Your task to perform on an android device: Add razer kraken to the cart on bestbuy, then select checkout. Image 0: 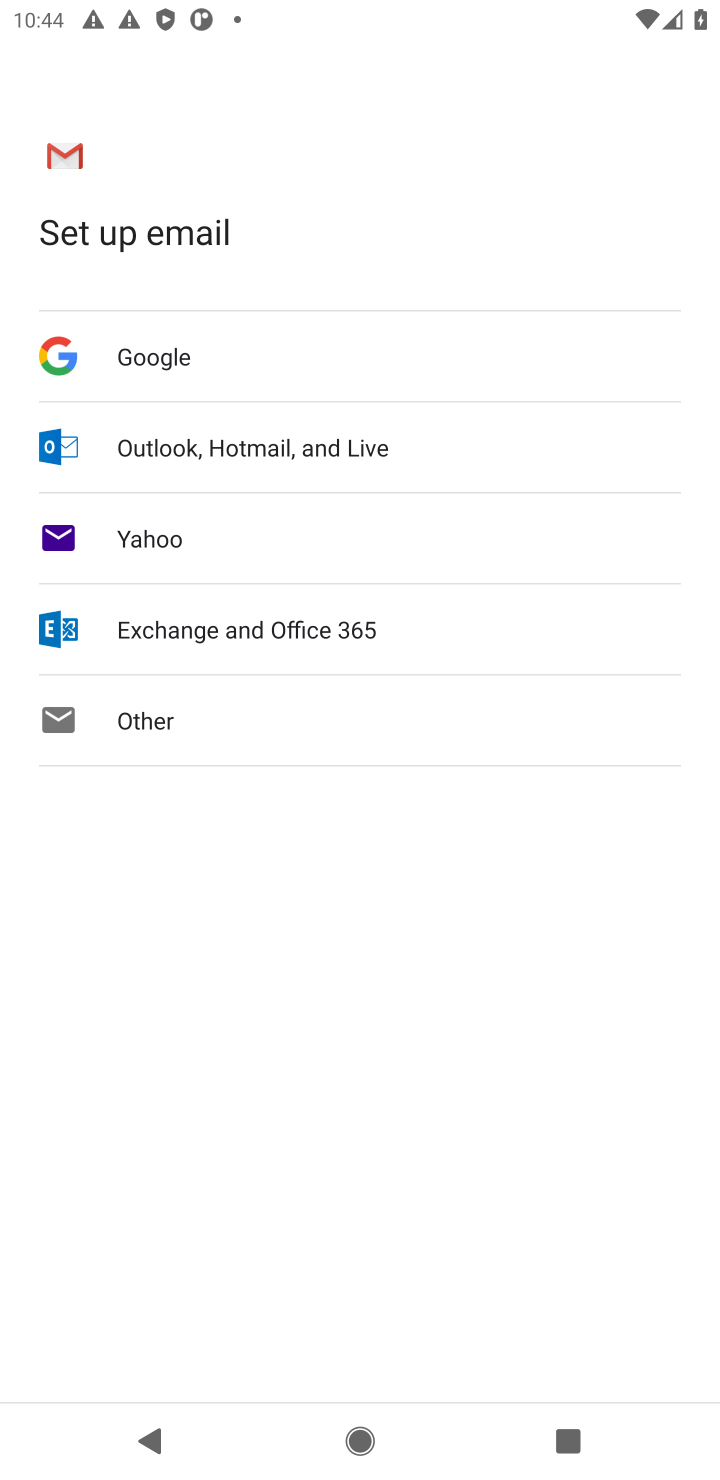
Step 0: press home button
Your task to perform on an android device: Add razer kraken to the cart on bestbuy, then select checkout. Image 1: 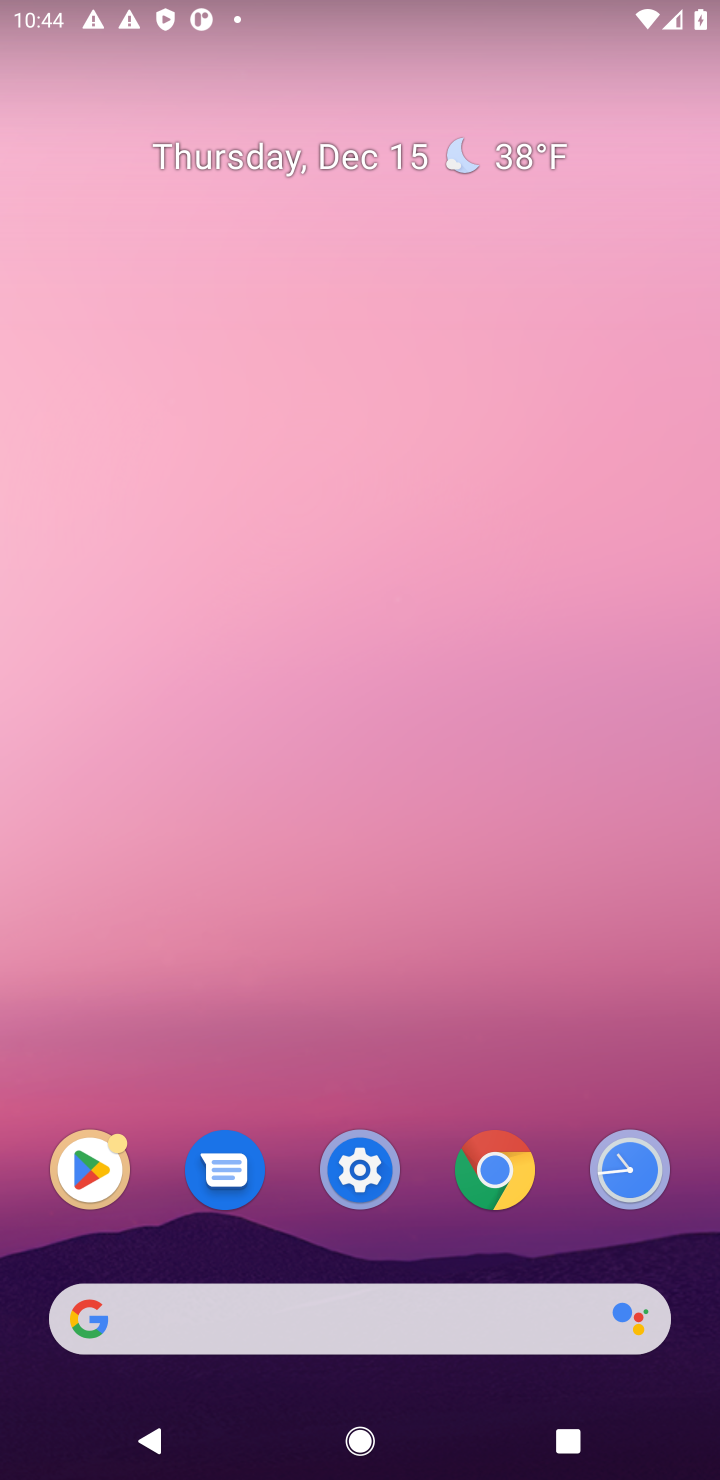
Step 1: click (485, 1184)
Your task to perform on an android device: Add razer kraken to the cart on bestbuy, then select checkout. Image 2: 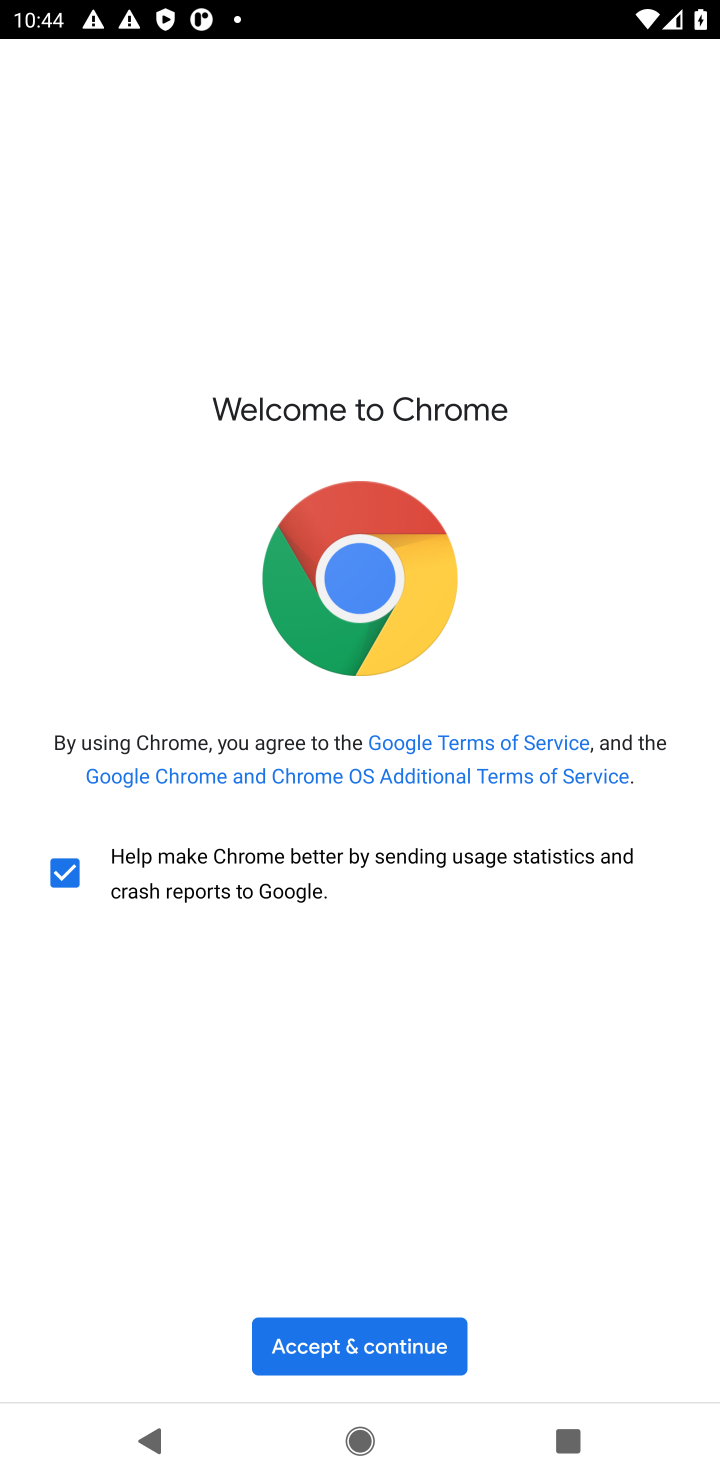
Step 2: click (373, 1339)
Your task to perform on an android device: Add razer kraken to the cart on bestbuy, then select checkout. Image 3: 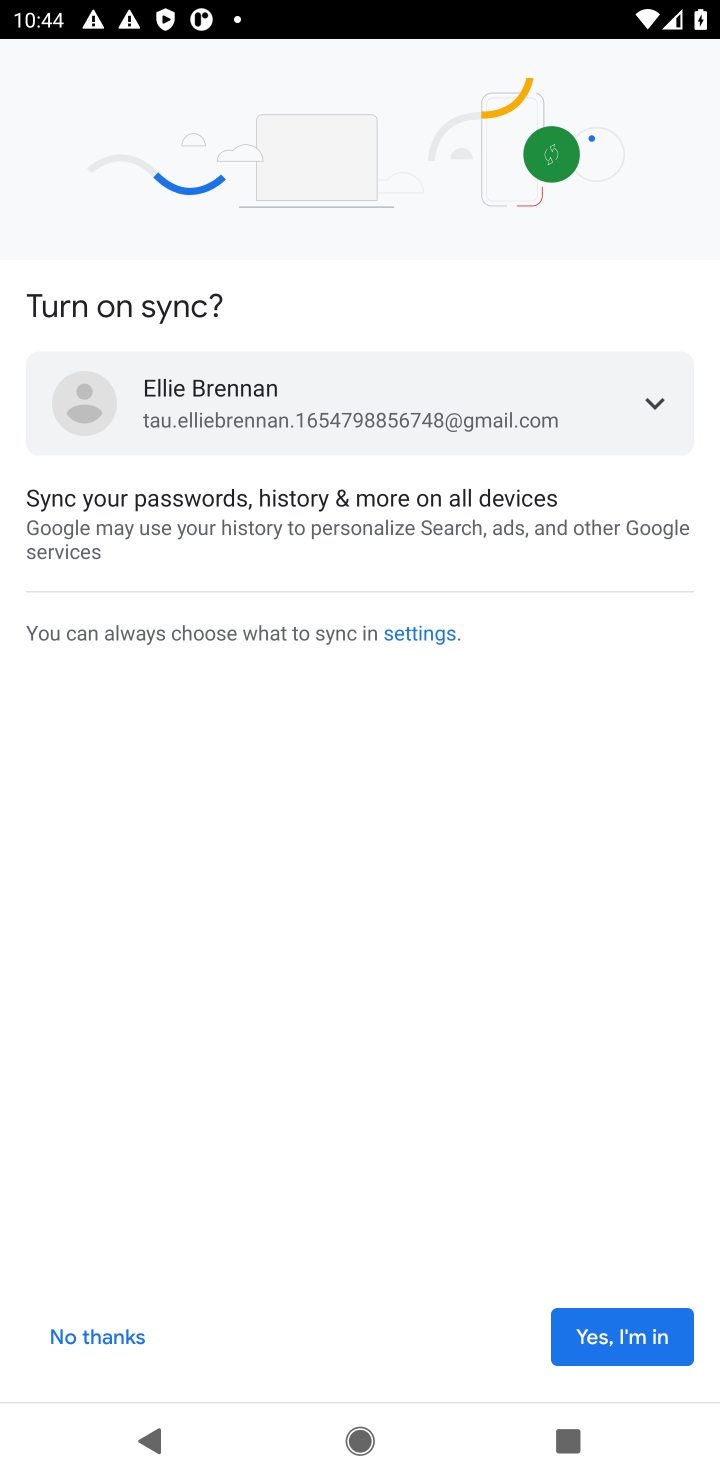
Step 3: click (111, 1328)
Your task to perform on an android device: Add razer kraken to the cart on bestbuy, then select checkout. Image 4: 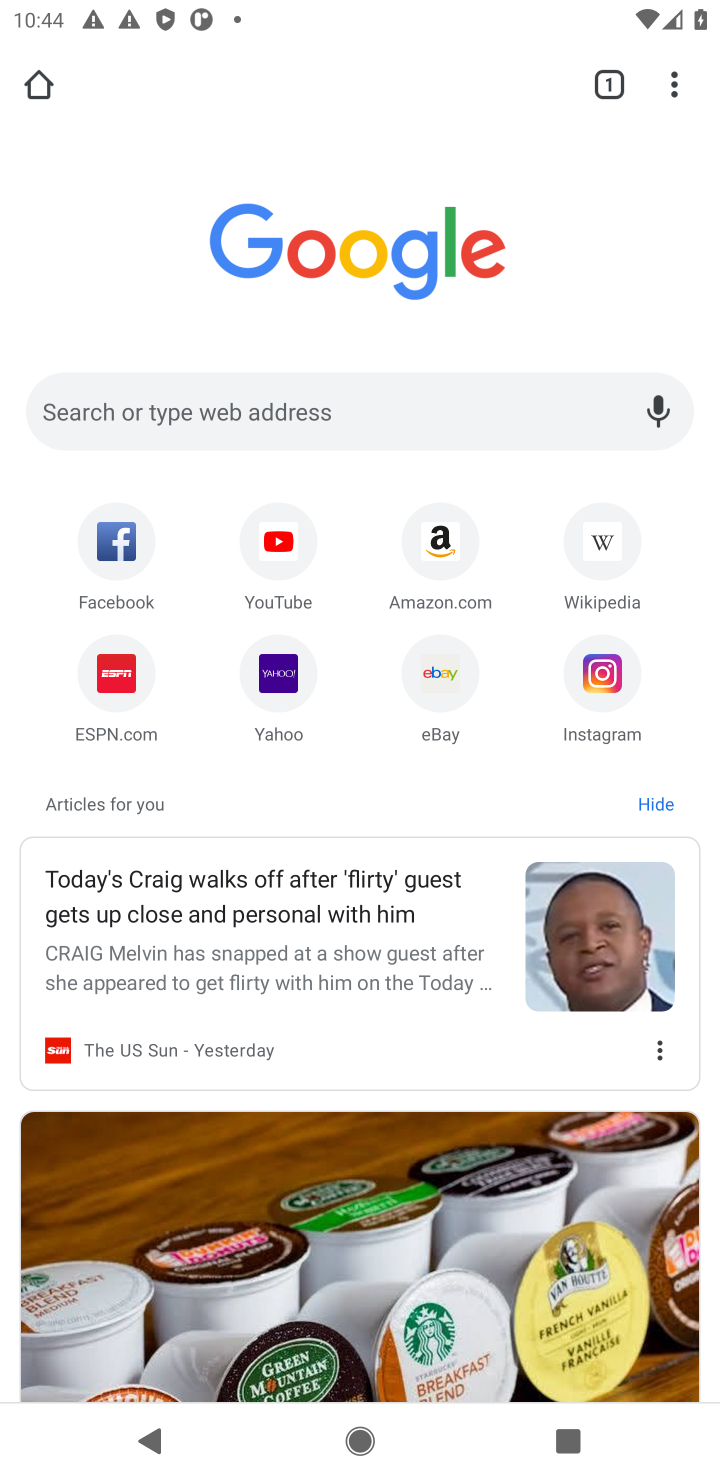
Step 4: click (227, 420)
Your task to perform on an android device: Add razer kraken to the cart on bestbuy, then select checkout. Image 5: 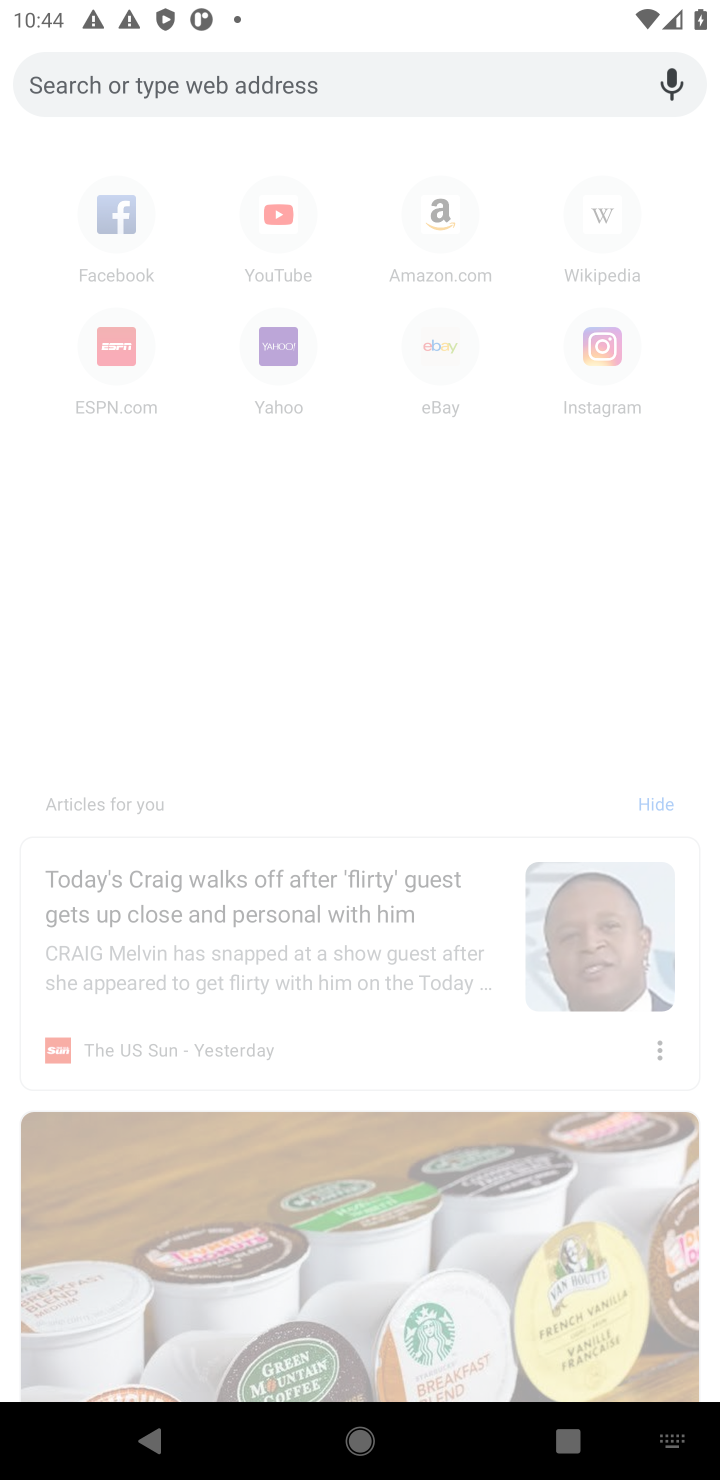
Step 5: type "bestbuy.com"
Your task to perform on an android device: Add razer kraken to the cart on bestbuy, then select checkout. Image 6: 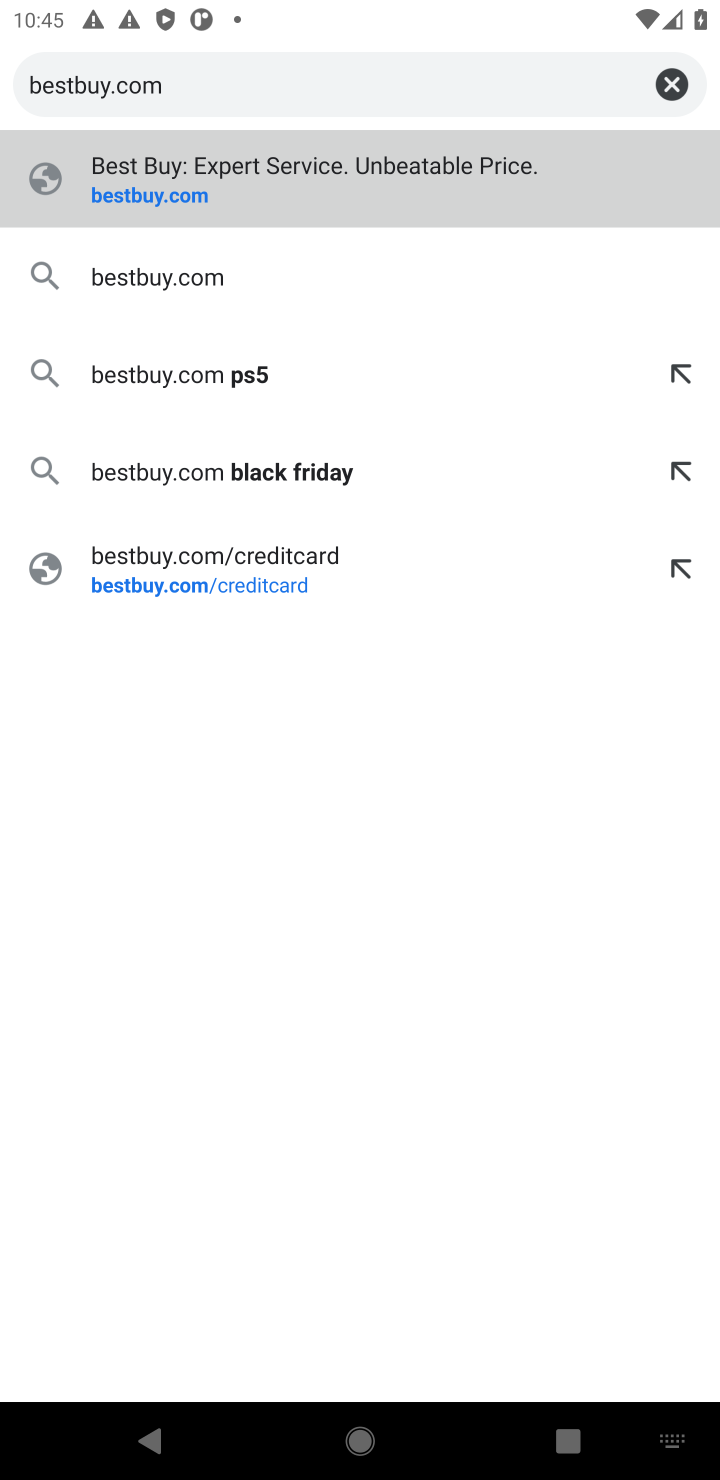
Step 6: click (133, 197)
Your task to perform on an android device: Add razer kraken to the cart on bestbuy, then select checkout. Image 7: 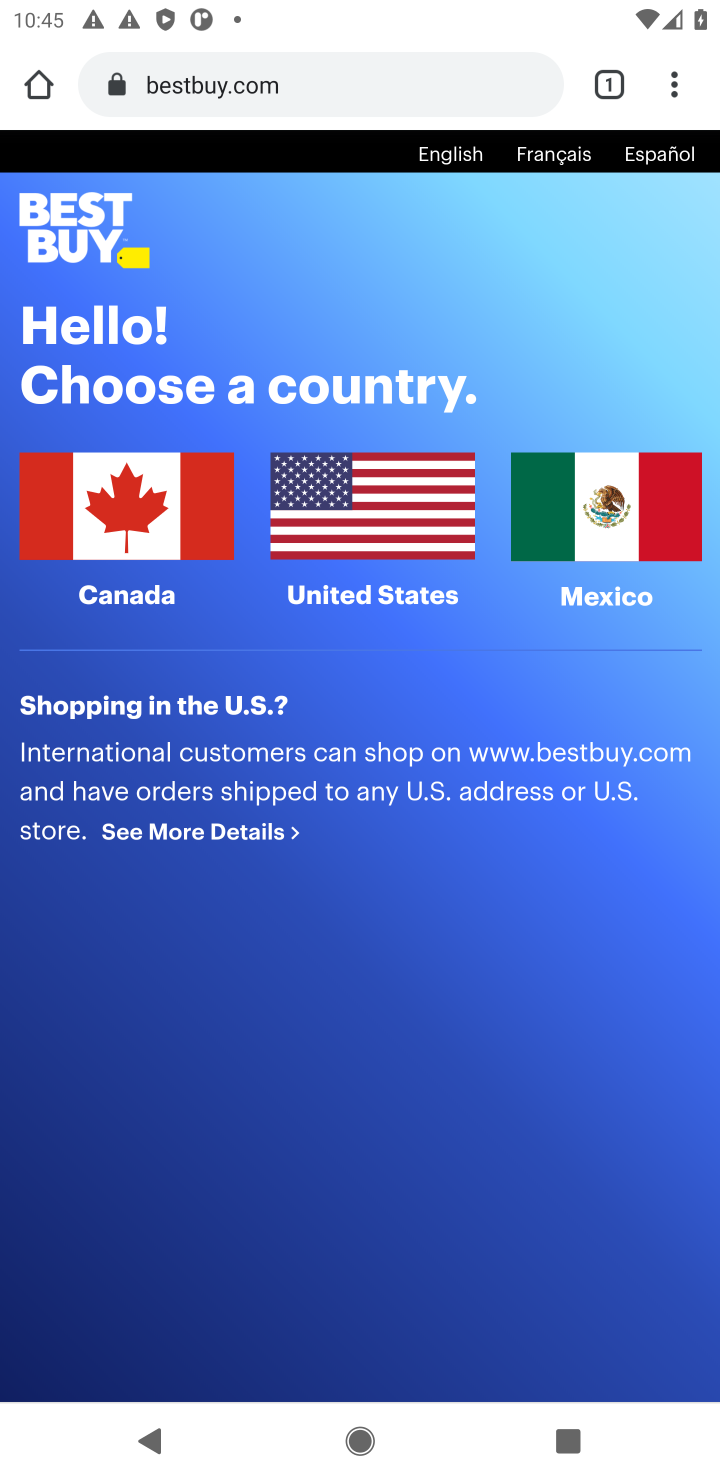
Step 7: click (355, 522)
Your task to perform on an android device: Add razer kraken to the cart on bestbuy, then select checkout. Image 8: 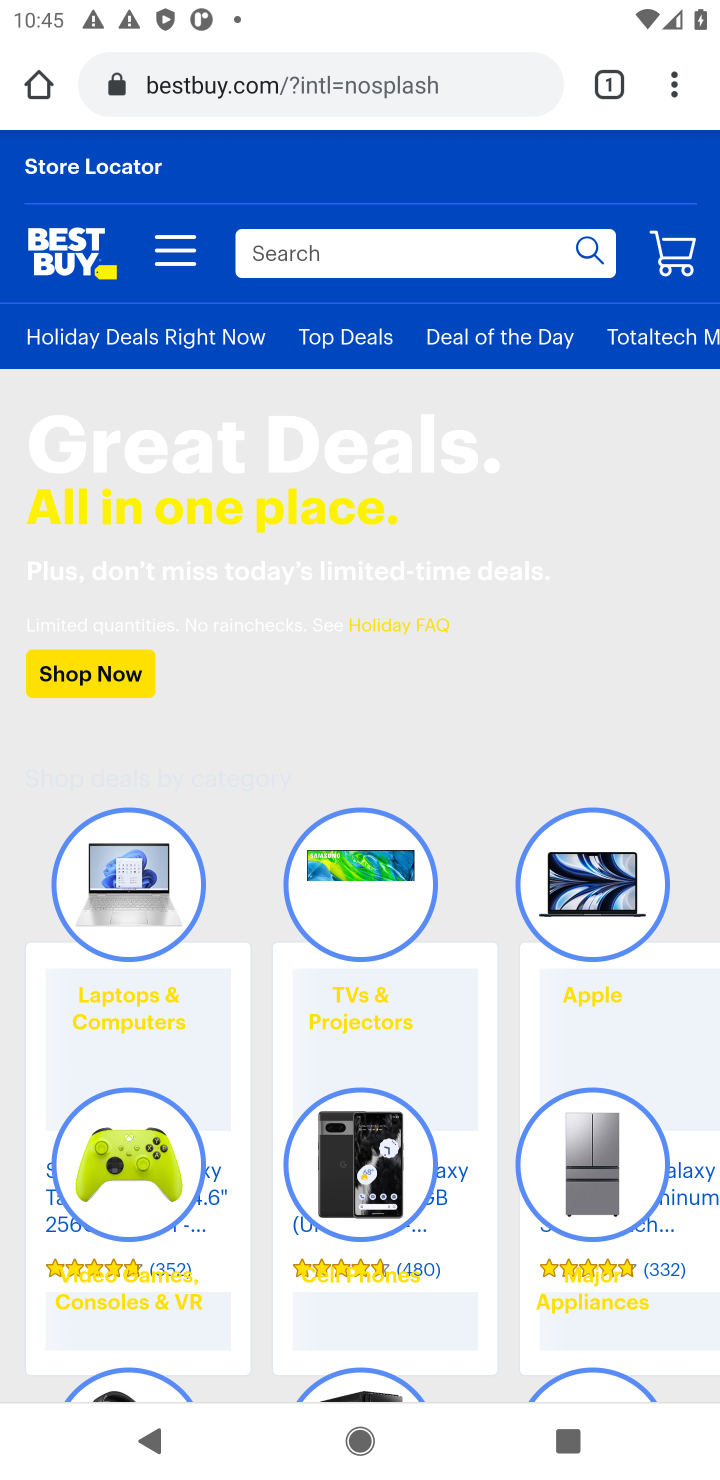
Step 8: click (375, 250)
Your task to perform on an android device: Add razer kraken to the cart on bestbuy, then select checkout. Image 9: 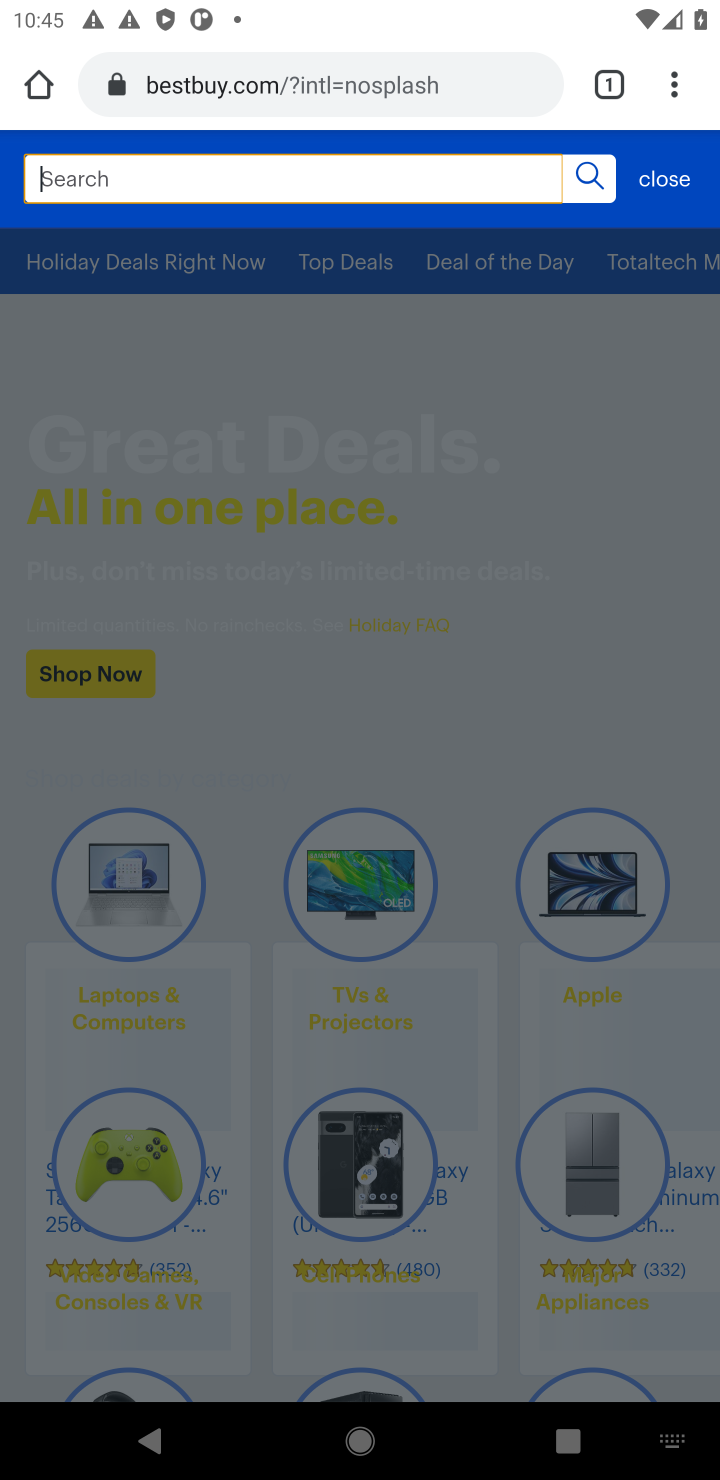
Step 9: type "razer kraken"
Your task to perform on an android device: Add razer kraken to the cart on bestbuy, then select checkout. Image 10: 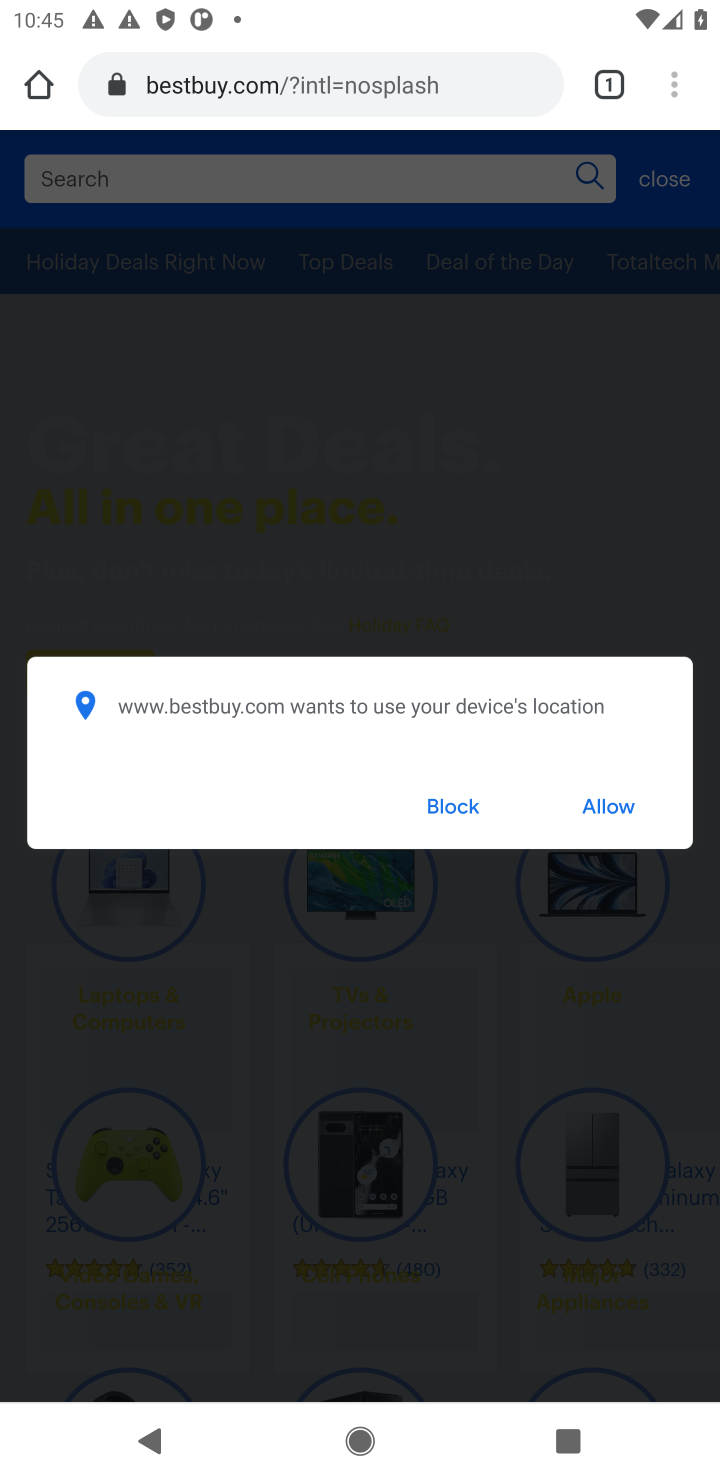
Step 10: click (445, 808)
Your task to perform on an android device: Add razer kraken to the cart on bestbuy, then select checkout. Image 11: 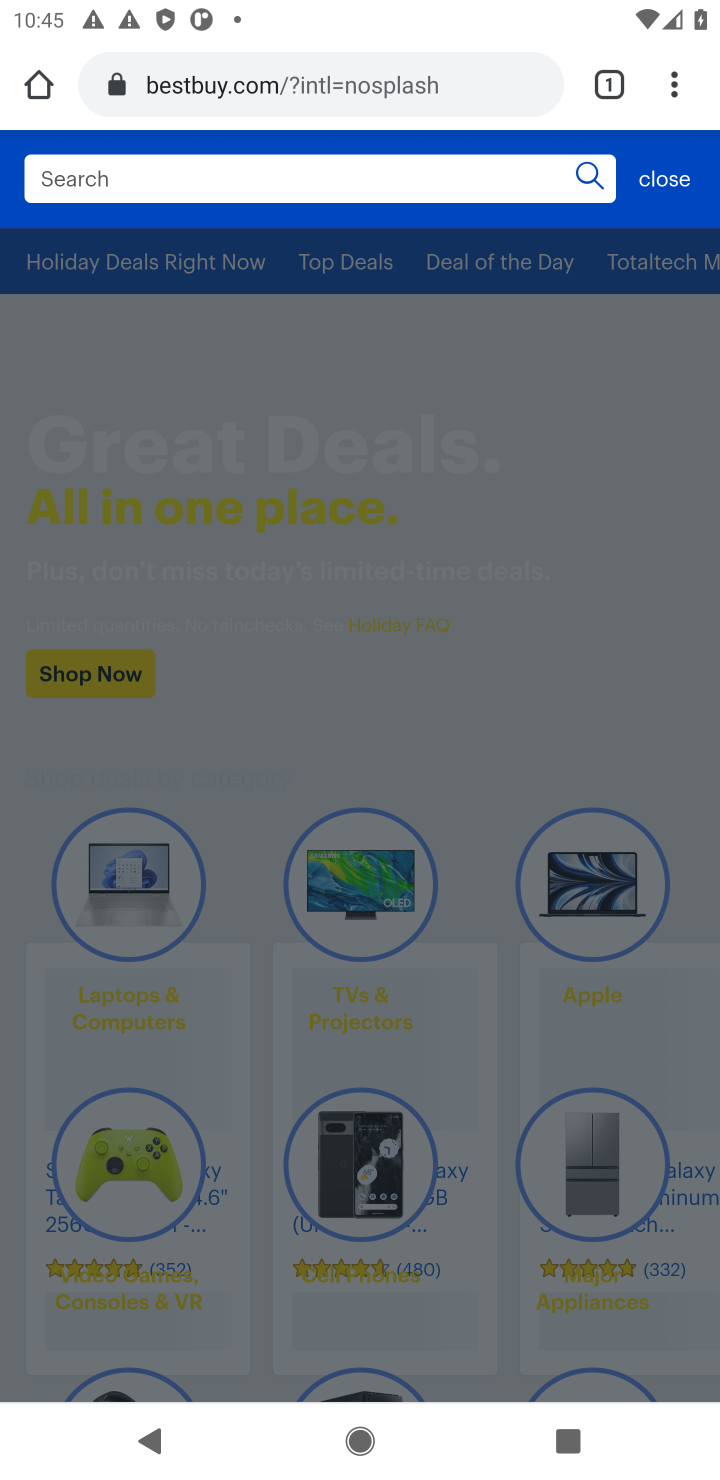
Step 11: click (162, 184)
Your task to perform on an android device: Add razer kraken to the cart on bestbuy, then select checkout. Image 12: 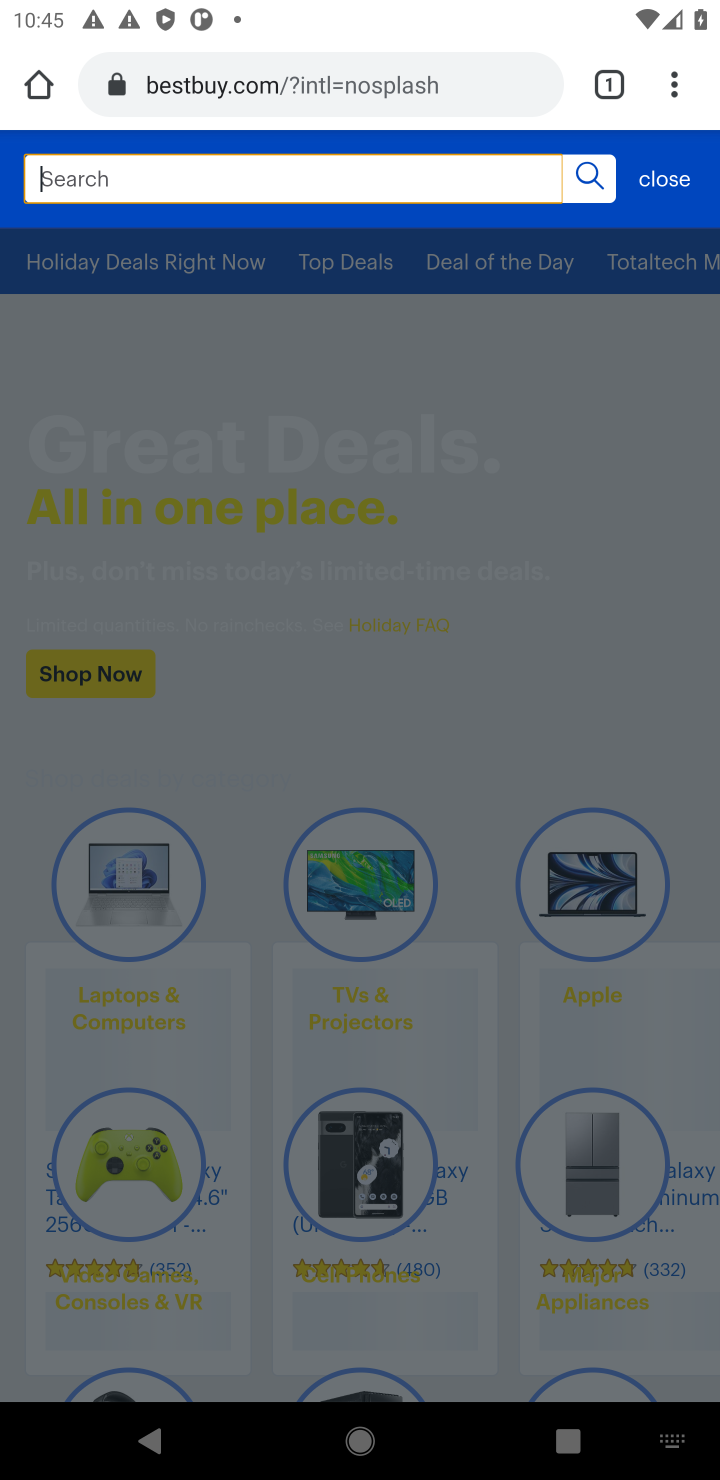
Step 12: click (64, 181)
Your task to perform on an android device: Add razer kraken to the cart on bestbuy, then select checkout. Image 13: 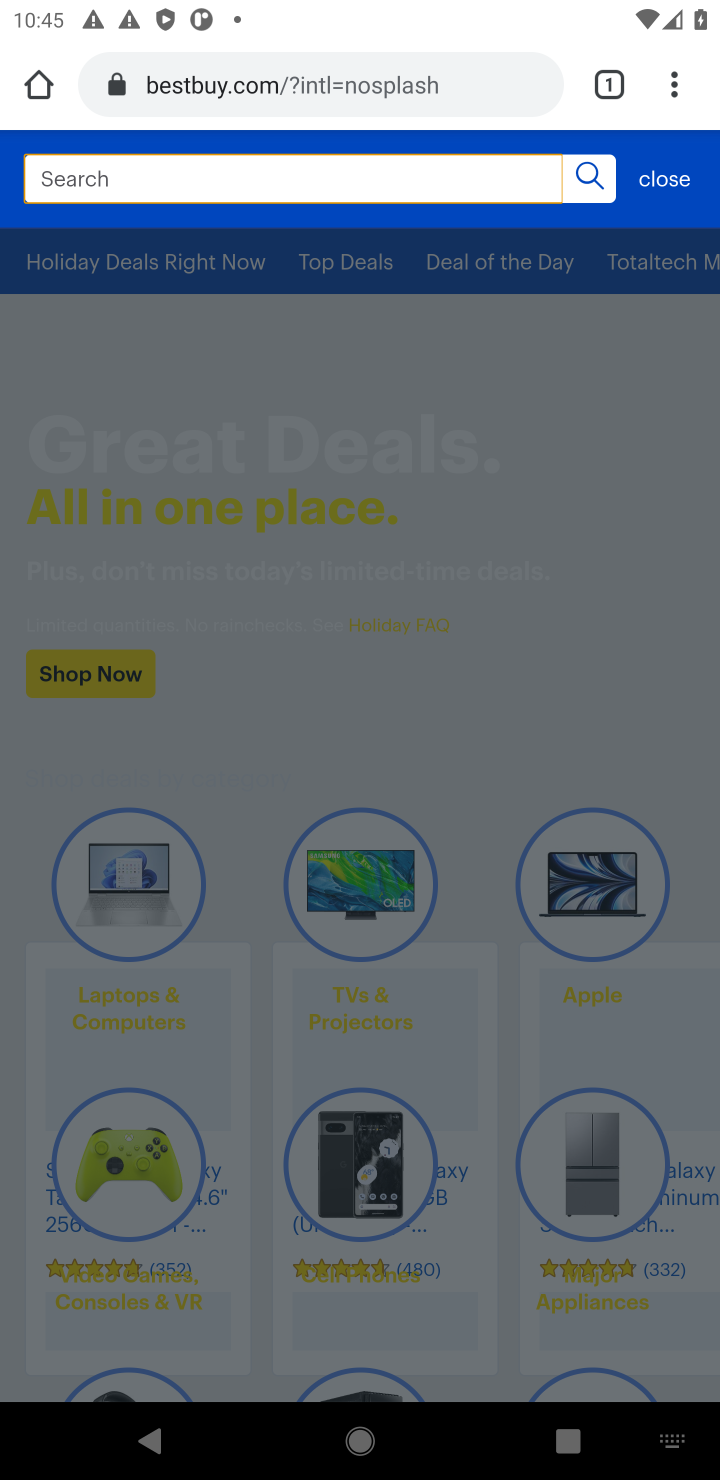
Step 13: type "razer kraken"
Your task to perform on an android device: Add razer kraken to the cart on bestbuy, then select checkout. Image 14: 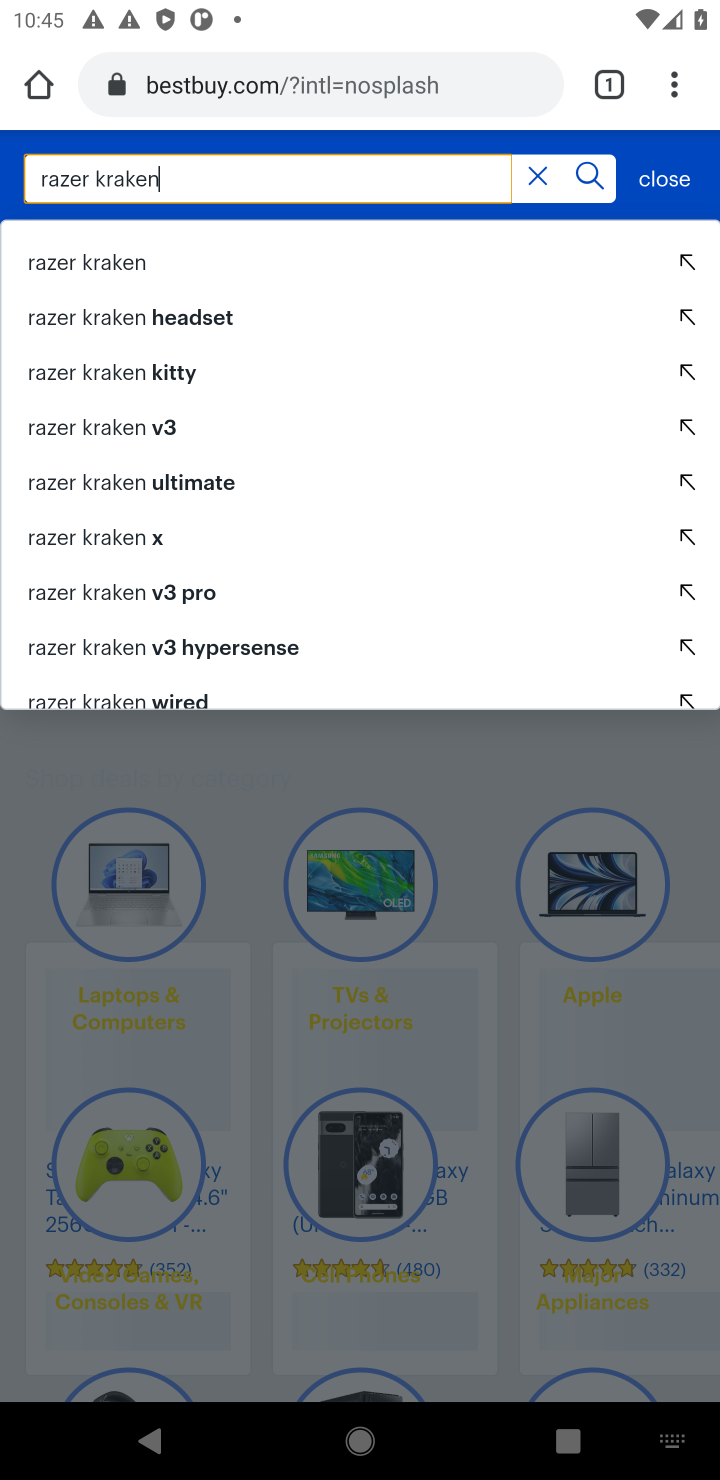
Step 14: click (96, 267)
Your task to perform on an android device: Add razer kraken to the cart on bestbuy, then select checkout. Image 15: 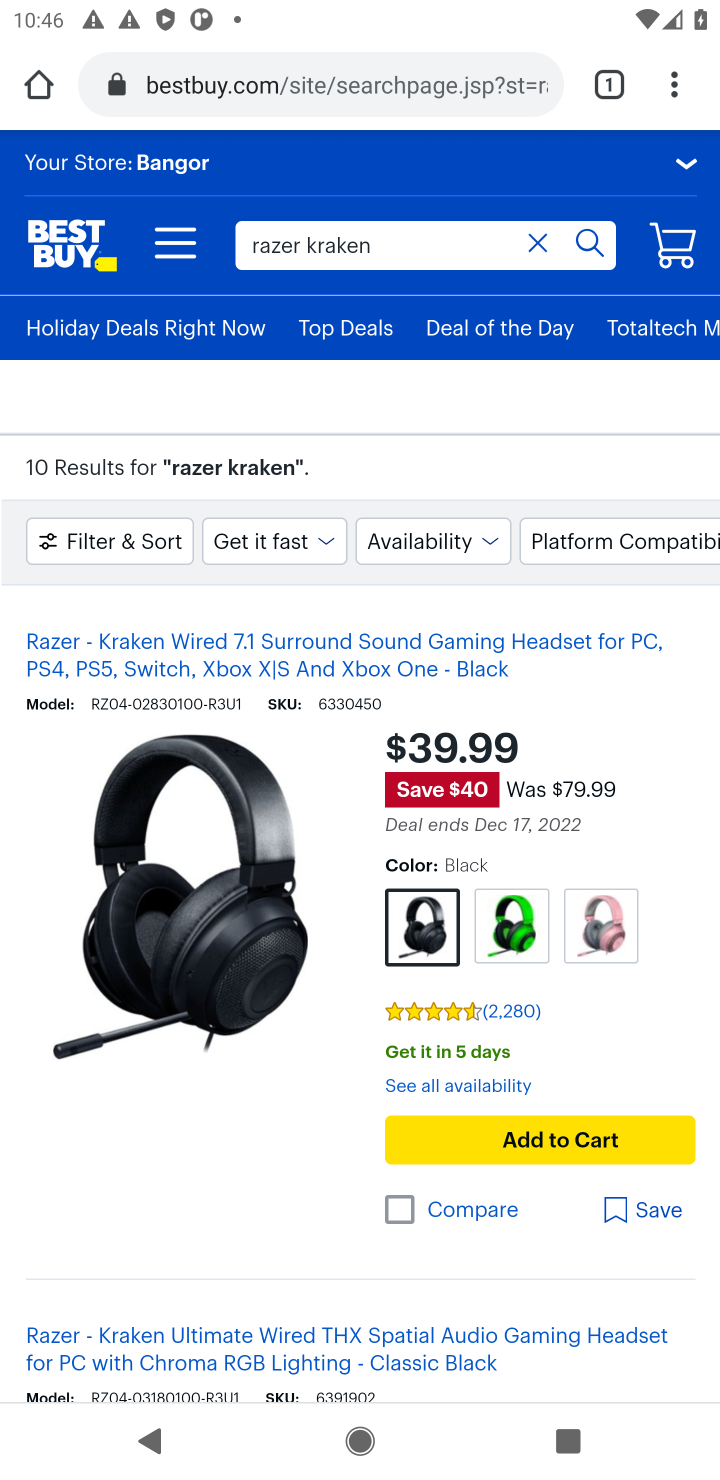
Step 15: click (516, 1130)
Your task to perform on an android device: Add razer kraken to the cart on bestbuy, then select checkout. Image 16: 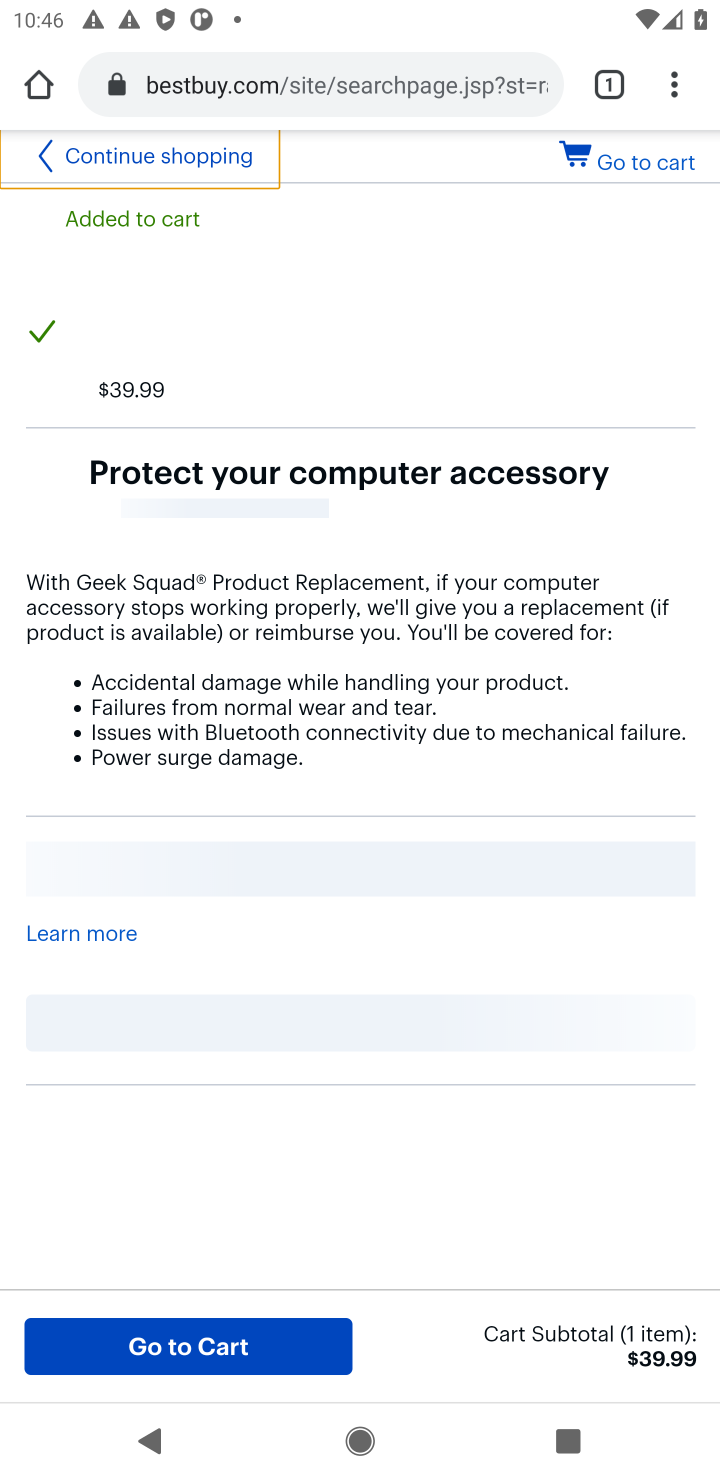
Step 16: click (647, 175)
Your task to perform on an android device: Add razer kraken to the cart on bestbuy, then select checkout. Image 17: 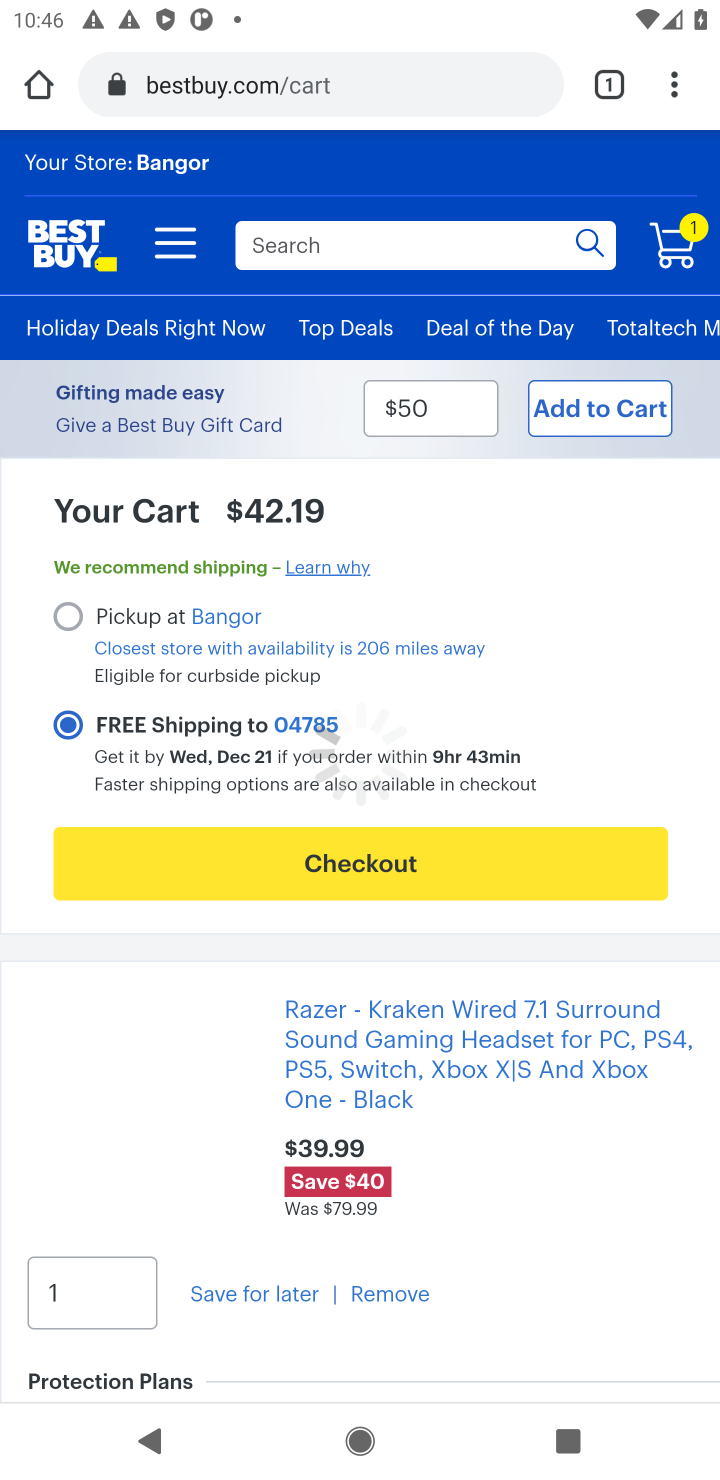
Step 17: click (387, 864)
Your task to perform on an android device: Add razer kraken to the cart on bestbuy, then select checkout. Image 18: 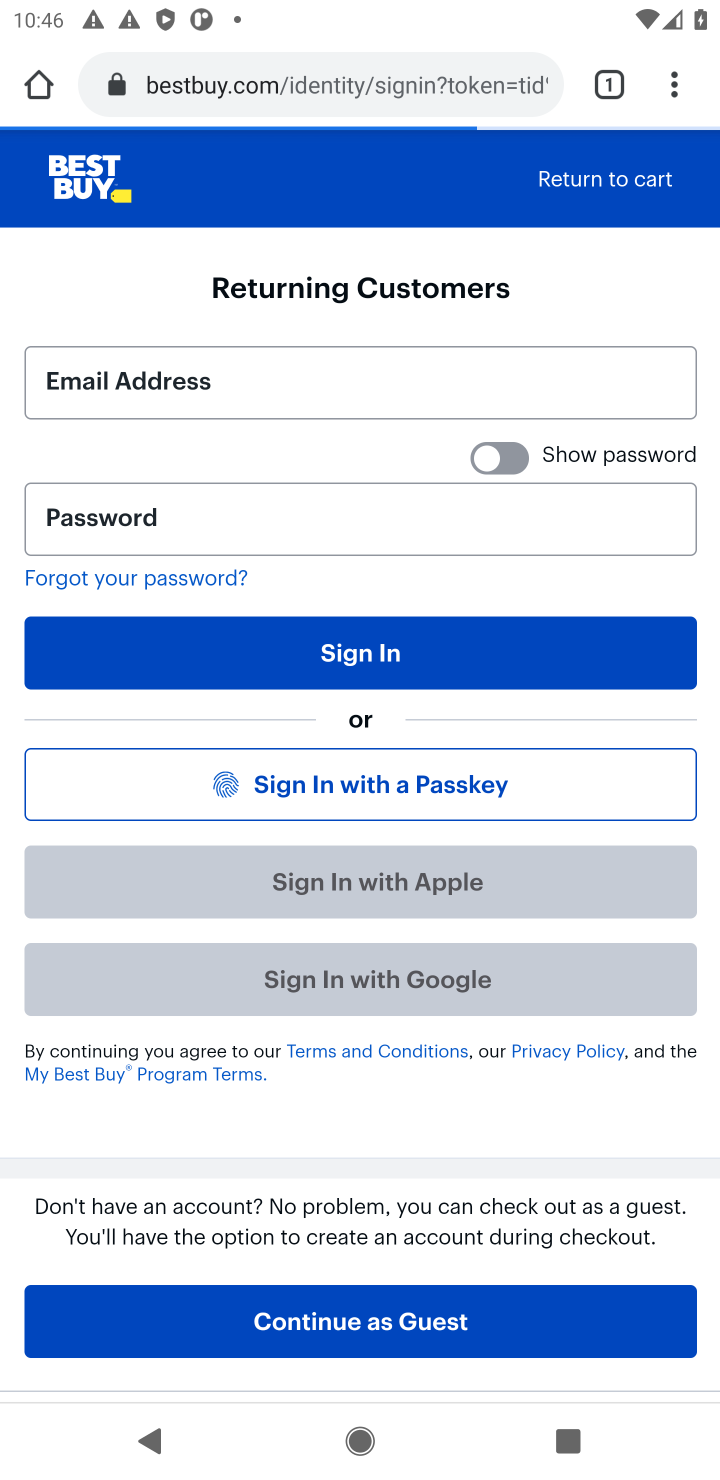
Step 18: task complete